Your task to perform on an android device: Go to accessibility settings Image 0: 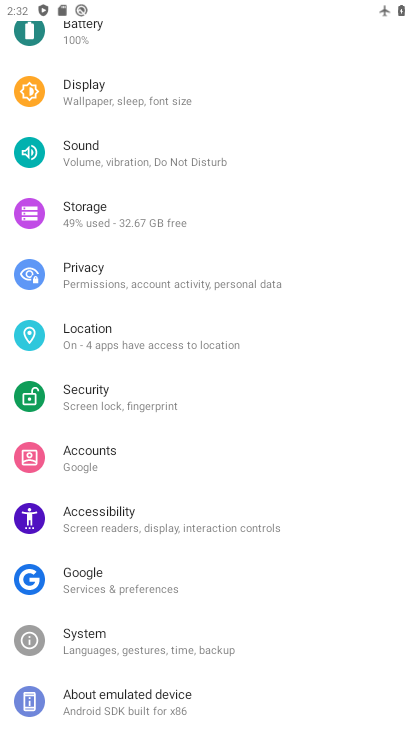
Step 0: press back button
Your task to perform on an android device: Go to accessibility settings Image 1: 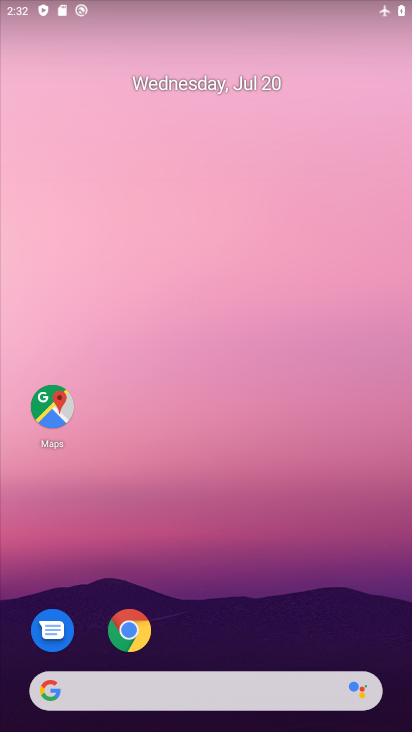
Step 1: drag from (251, 649) to (231, 373)
Your task to perform on an android device: Go to accessibility settings Image 2: 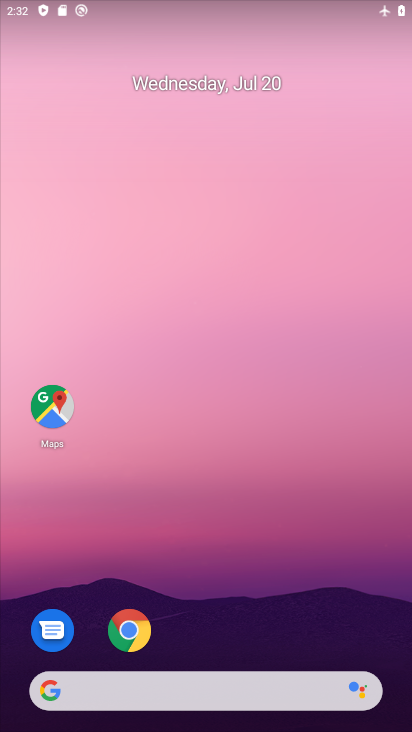
Step 2: drag from (224, 713) to (223, 431)
Your task to perform on an android device: Go to accessibility settings Image 3: 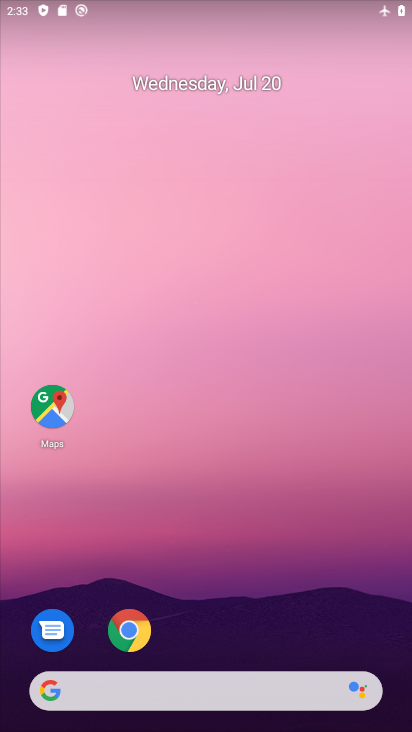
Step 3: drag from (293, 707) to (257, 374)
Your task to perform on an android device: Go to accessibility settings Image 4: 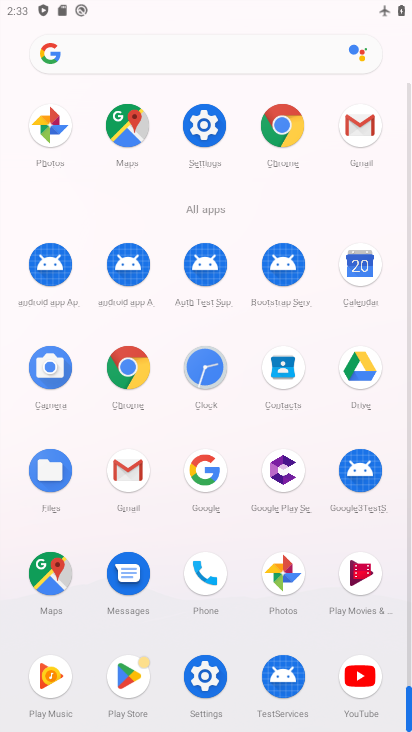
Step 4: click (213, 117)
Your task to perform on an android device: Go to accessibility settings Image 5: 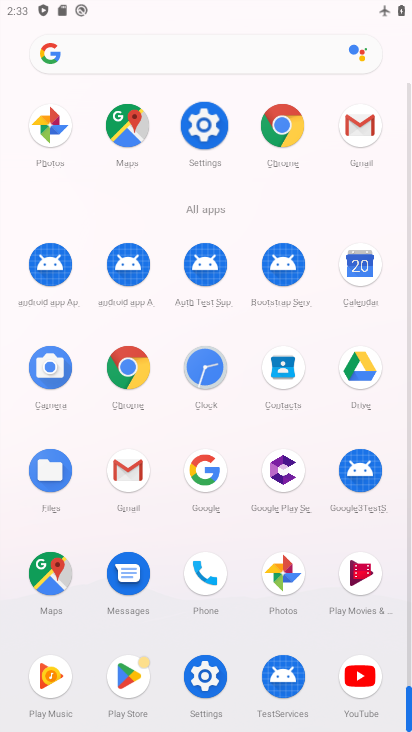
Step 5: click (212, 118)
Your task to perform on an android device: Go to accessibility settings Image 6: 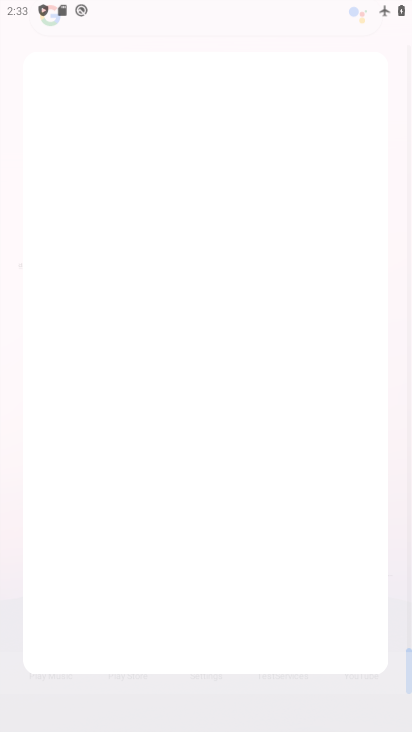
Step 6: click (212, 118)
Your task to perform on an android device: Go to accessibility settings Image 7: 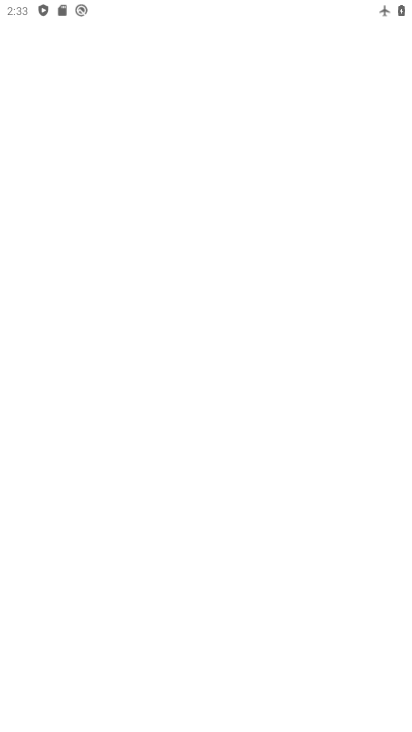
Step 7: click (212, 118)
Your task to perform on an android device: Go to accessibility settings Image 8: 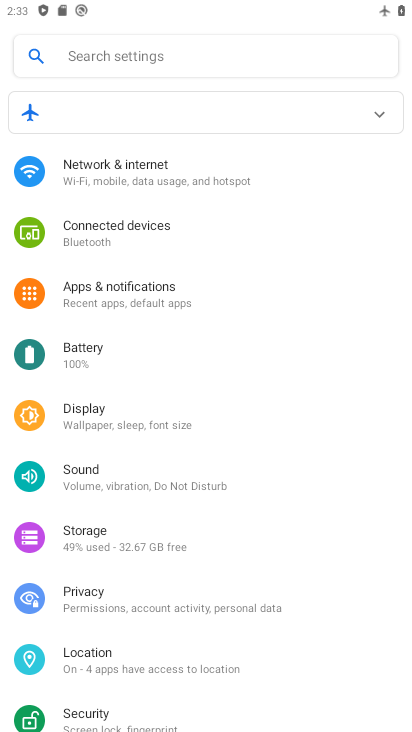
Step 8: drag from (151, 513) to (151, 325)
Your task to perform on an android device: Go to accessibility settings Image 9: 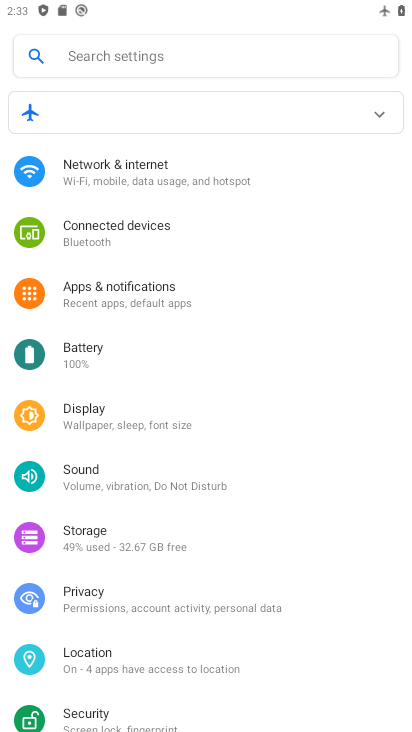
Step 9: drag from (237, 582) to (235, 211)
Your task to perform on an android device: Go to accessibility settings Image 10: 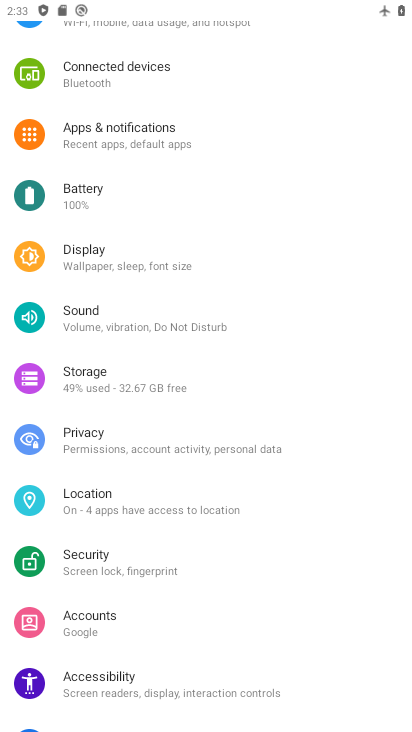
Step 10: drag from (242, 536) to (236, 251)
Your task to perform on an android device: Go to accessibility settings Image 11: 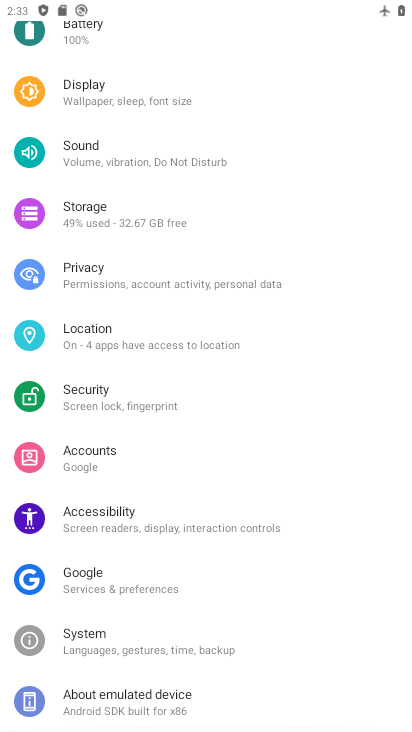
Step 11: drag from (240, 577) to (177, 362)
Your task to perform on an android device: Go to accessibility settings Image 12: 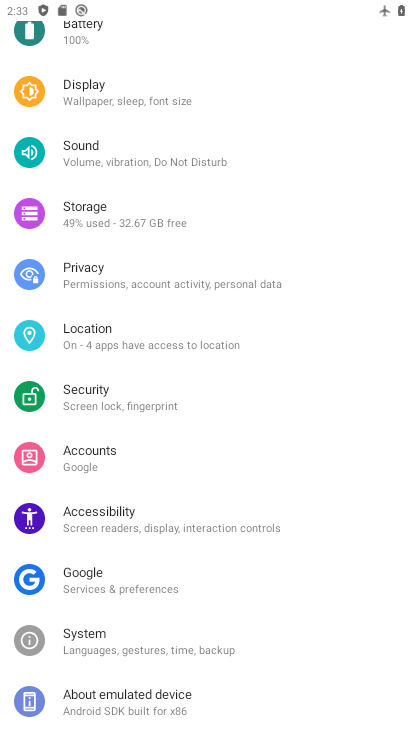
Step 12: click (98, 512)
Your task to perform on an android device: Go to accessibility settings Image 13: 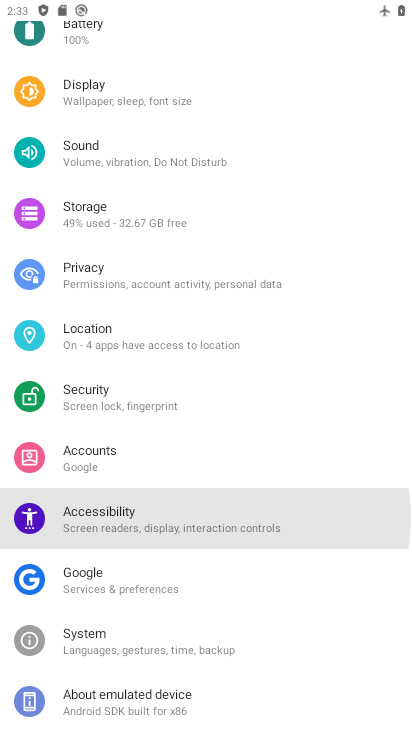
Step 13: click (103, 510)
Your task to perform on an android device: Go to accessibility settings Image 14: 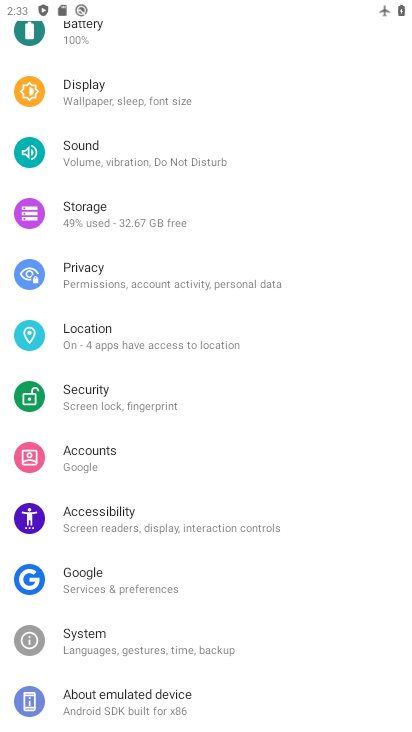
Step 14: click (103, 510)
Your task to perform on an android device: Go to accessibility settings Image 15: 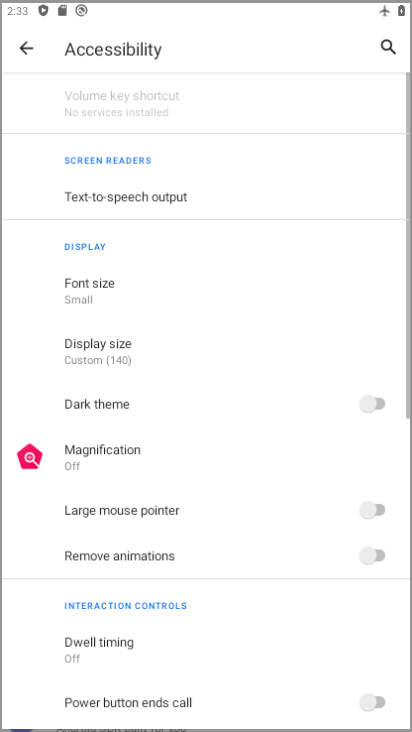
Step 15: click (104, 510)
Your task to perform on an android device: Go to accessibility settings Image 16: 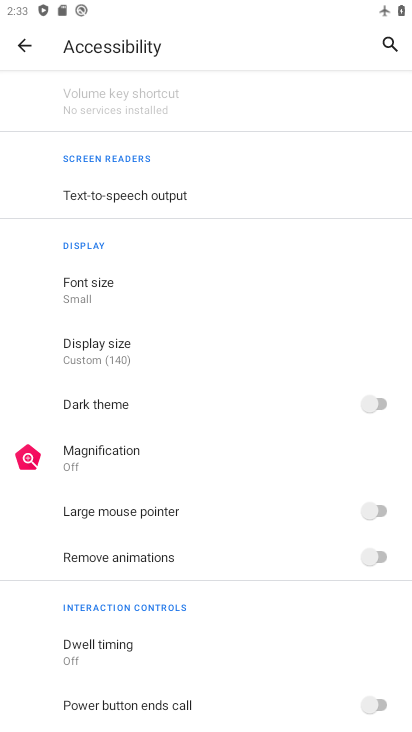
Step 16: task complete